Your task to perform on an android device: Open display settings Image 0: 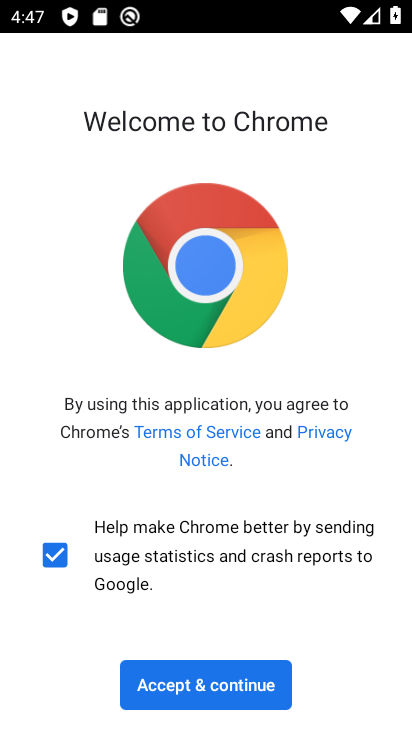
Step 0: press home button
Your task to perform on an android device: Open display settings Image 1: 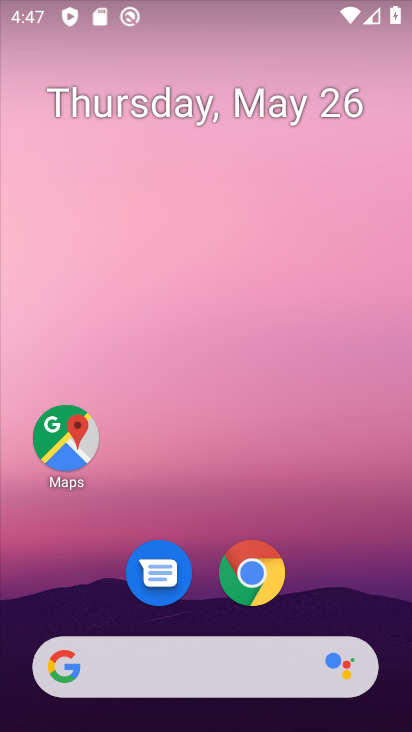
Step 1: press home button
Your task to perform on an android device: Open display settings Image 2: 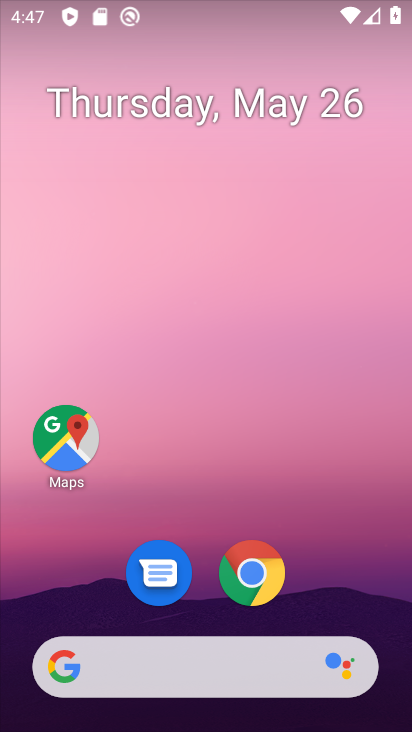
Step 2: drag from (309, 585) to (238, 72)
Your task to perform on an android device: Open display settings Image 3: 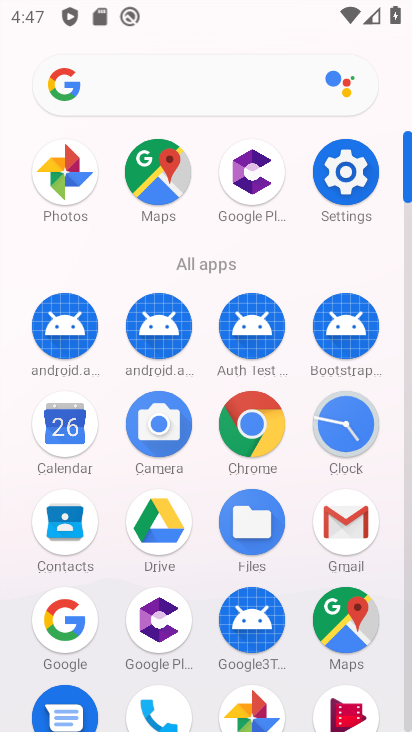
Step 3: click (340, 170)
Your task to perform on an android device: Open display settings Image 4: 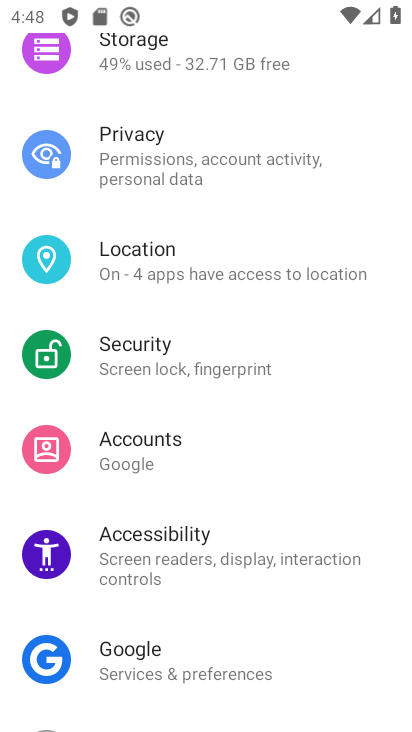
Step 4: drag from (164, 196) to (219, 567)
Your task to perform on an android device: Open display settings Image 5: 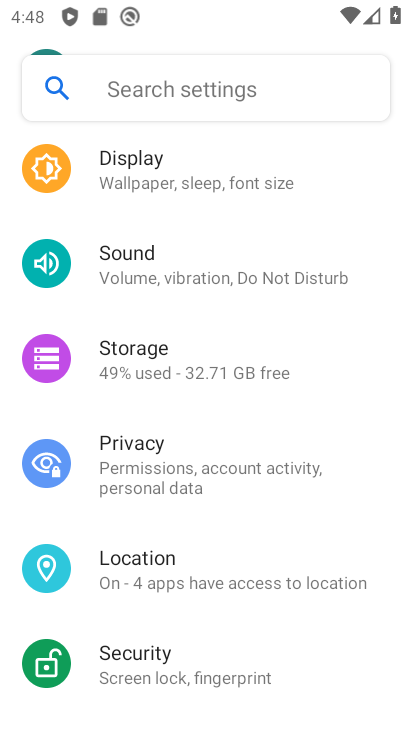
Step 5: click (180, 168)
Your task to perform on an android device: Open display settings Image 6: 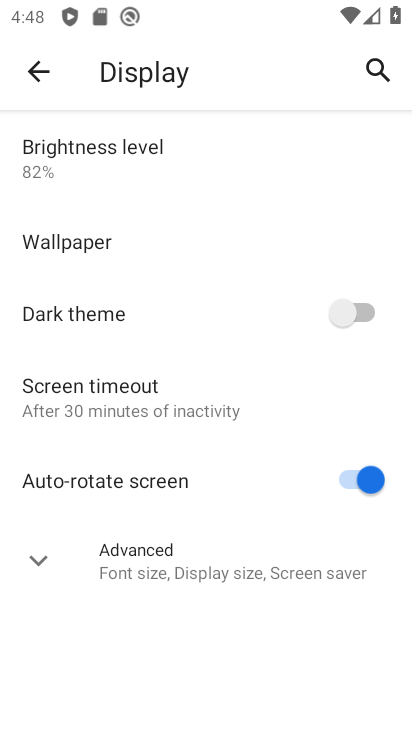
Step 6: task complete